Your task to perform on an android device: Go to Google Image 0: 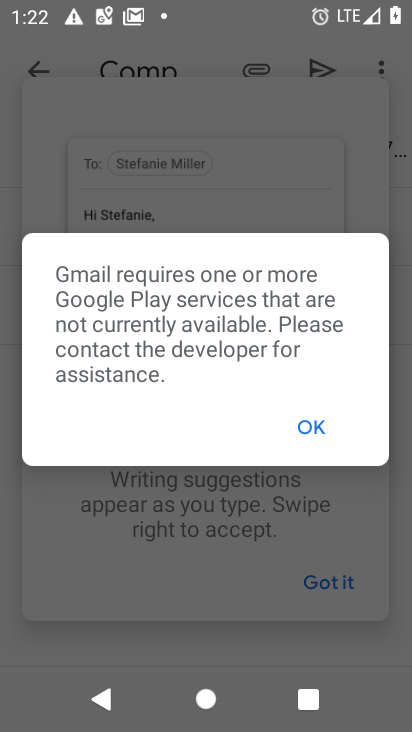
Step 0: press home button
Your task to perform on an android device: Go to Google Image 1: 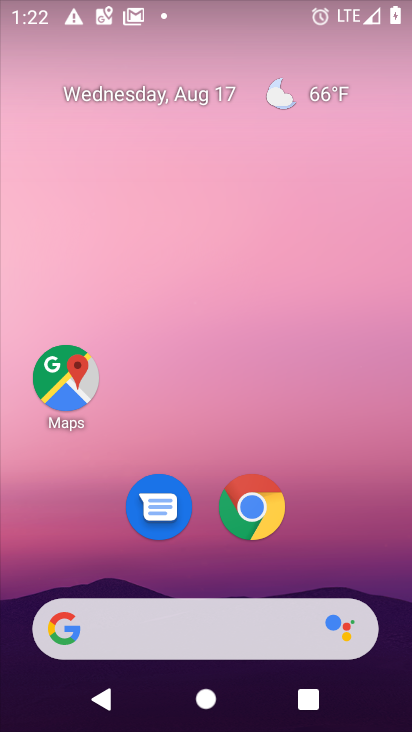
Step 1: click (239, 606)
Your task to perform on an android device: Go to Google Image 2: 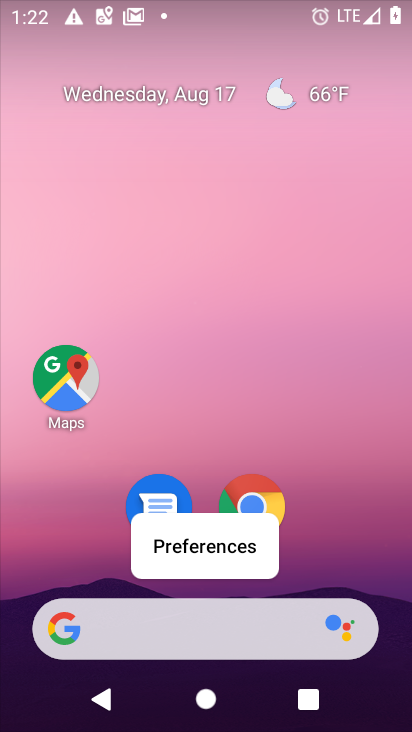
Step 2: click (235, 627)
Your task to perform on an android device: Go to Google Image 3: 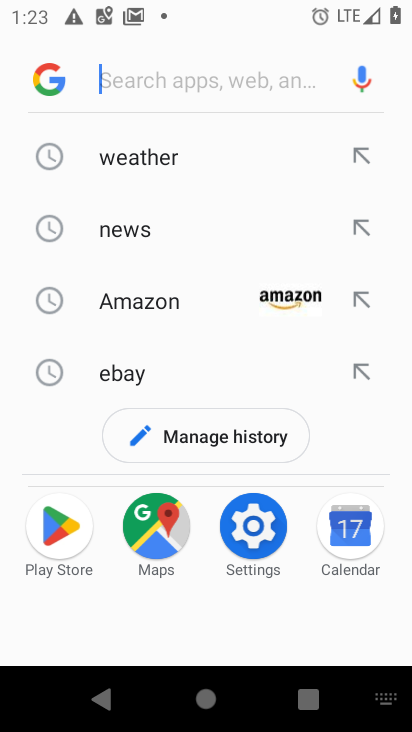
Step 3: task complete